Your task to perform on an android device: Open Google Chrome Image 0: 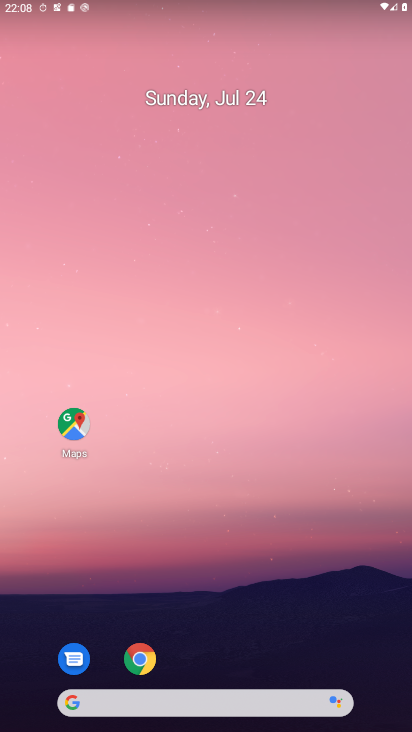
Step 0: click (141, 654)
Your task to perform on an android device: Open Google Chrome Image 1: 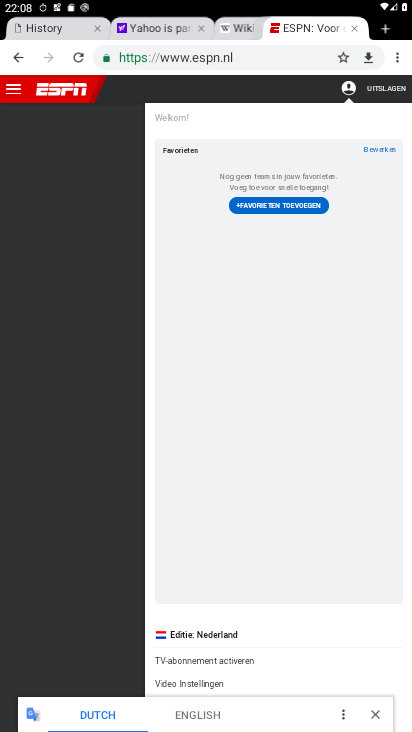
Step 1: task complete